Your task to perform on an android device: Go to Wikipedia Image 0: 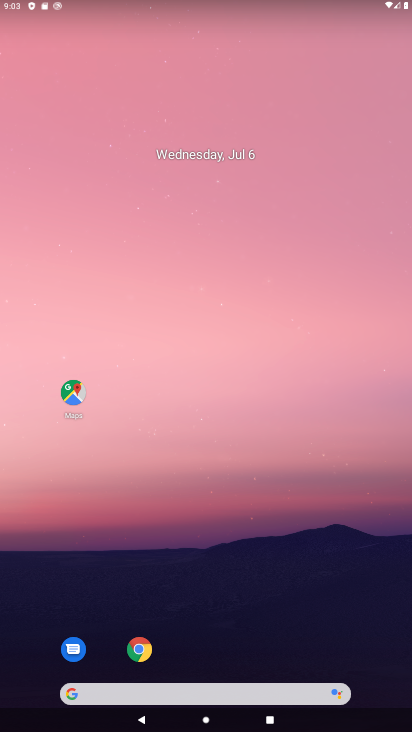
Step 0: drag from (154, 603) to (264, 73)
Your task to perform on an android device: Go to Wikipedia Image 1: 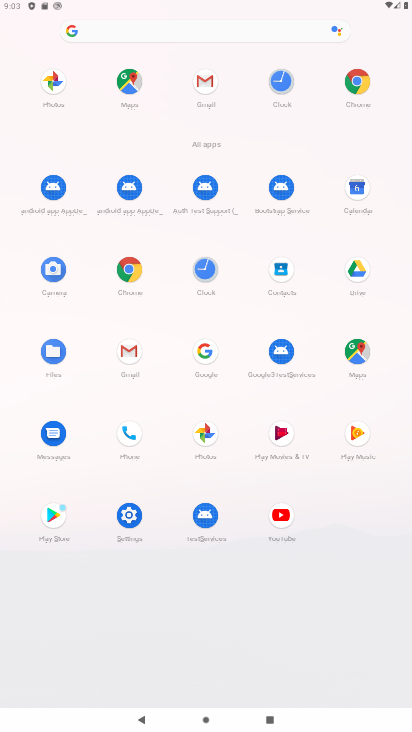
Step 1: click (125, 274)
Your task to perform on an android device: Go to Wikipedia Image 2: 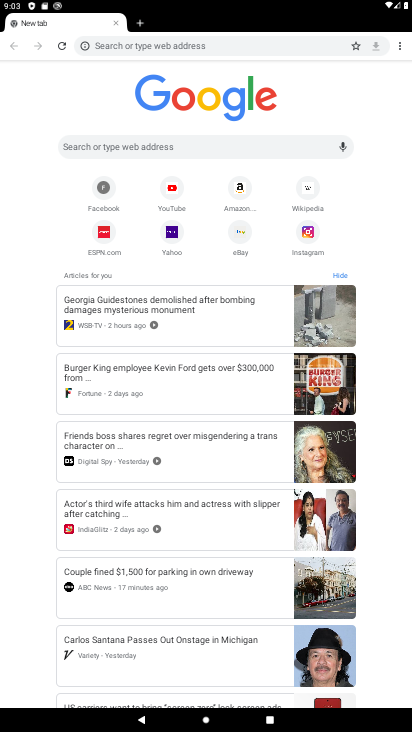
Step 2: drag from (214, 227) to (168, 703)
Your task to perform on an android device: Go to Wikipedia Image 3: 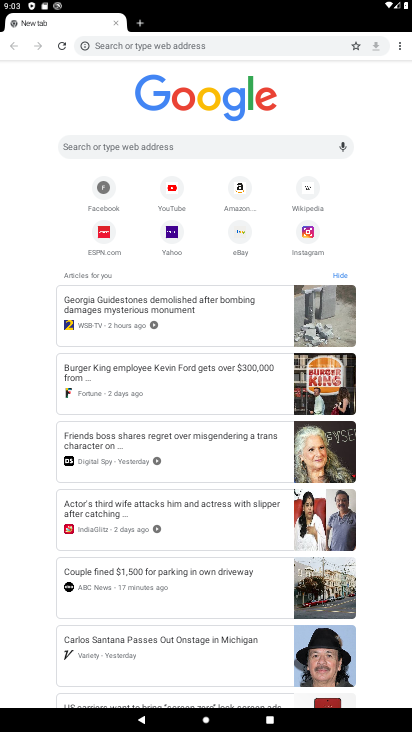
Step 3: click (304, 195)
Your task to perform on an android device: Go to Wikipedia Image 4: 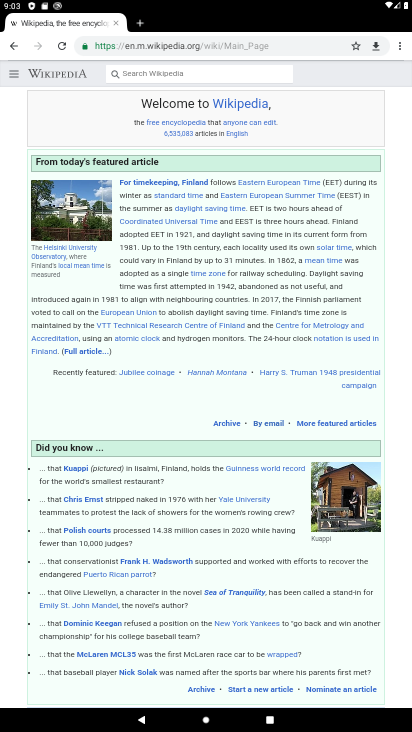
Step 4: task complete